Your task to perform on an android device: turn smart compose on in the gmail app Image 0: 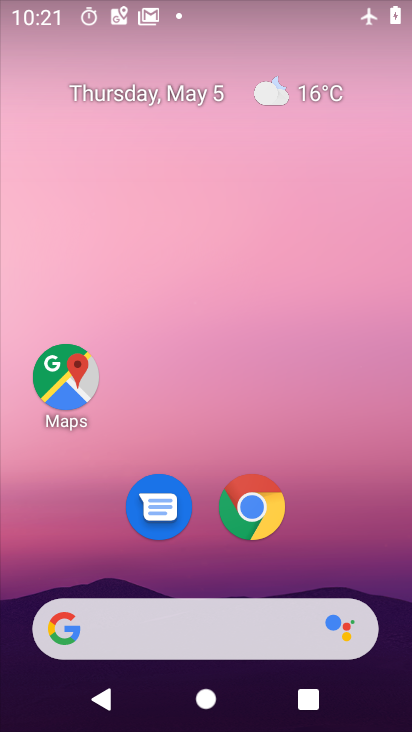
Step 0: drag from (151, 580) to (187, 195)
Your task to perform on an android device: turn smart compose on in the gmail app Image 1: 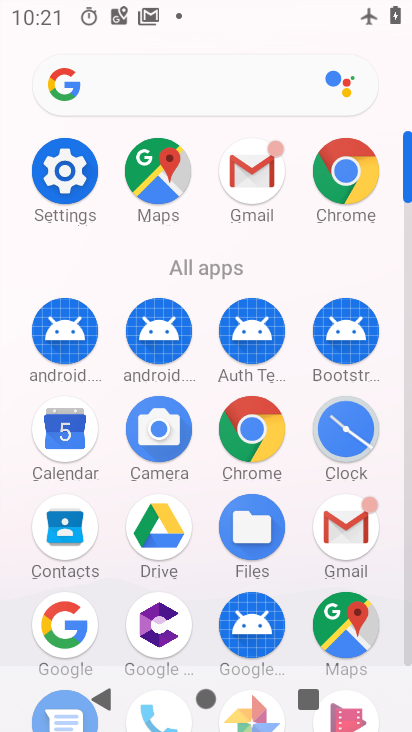
Step 1: click (360, 526)
Your task to perform on an android device: turn smart compose on in the gmail app Image 2: 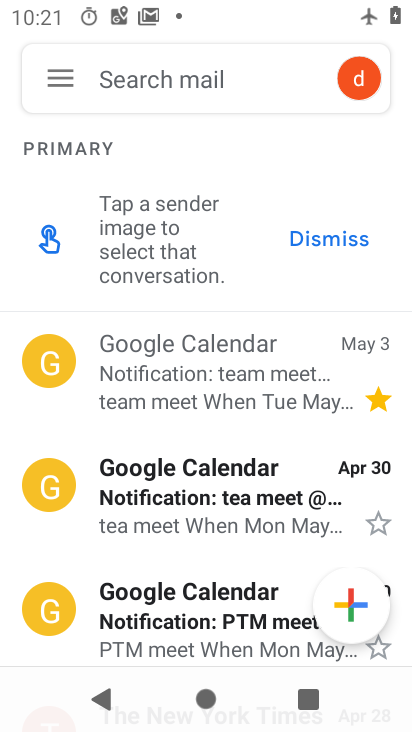
Step 2: click (44, 77)
Your task to perform on an android device: turn smart compose on in the gmail app Image 3: 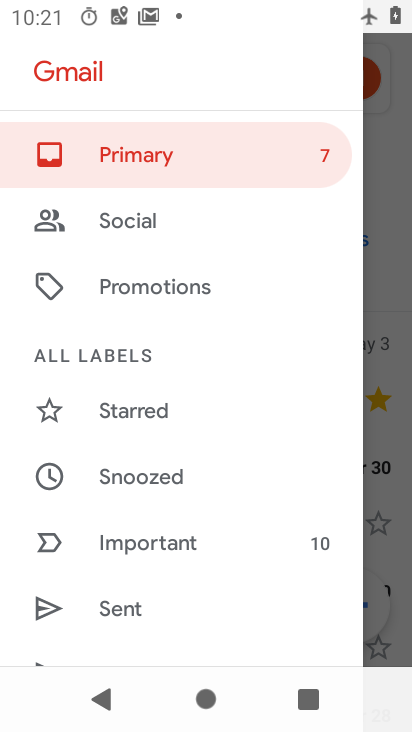
Step 3: drag from (142, 614) to (207, 268)
Your task to perform on an android device: turn smart compose on in the gmail app Image 4: 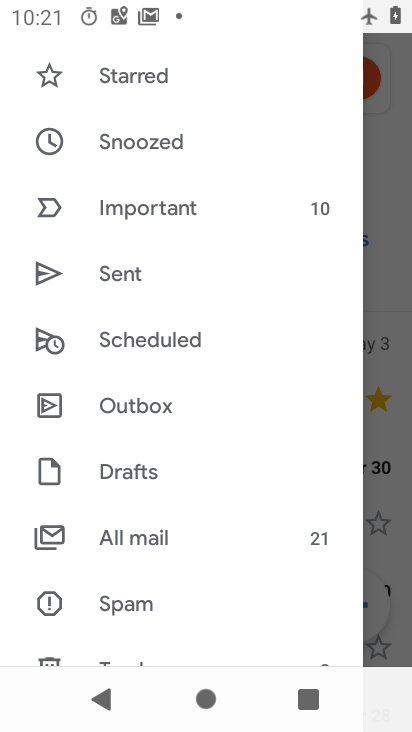
Step 4: drag from (137, 619) to (172, 398)
Your task to perform on an android device: turn smart compose on in the gmail app Image 5: 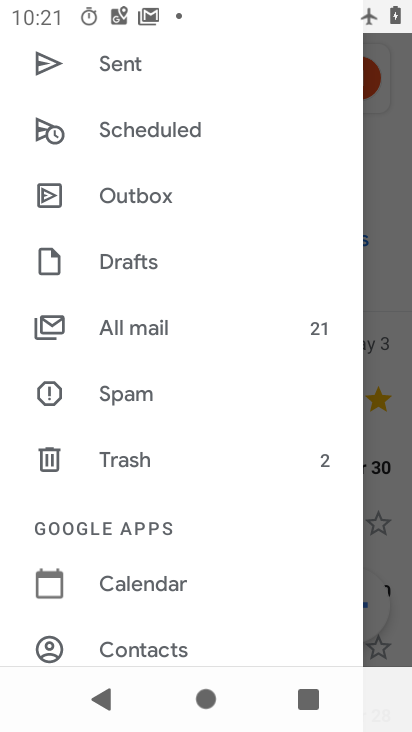
Step 5: drag from (126, 635) to (199, 352)
Your task to perform on an android device: turn smart compose on in the gmail app Image 6: 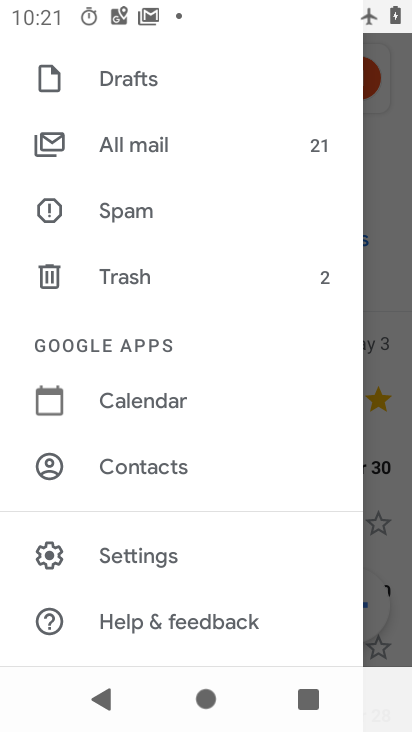
Step 6: click (133, 557)
Your task to perform on an android device: turn smart compose on in the gmail app Image 7: 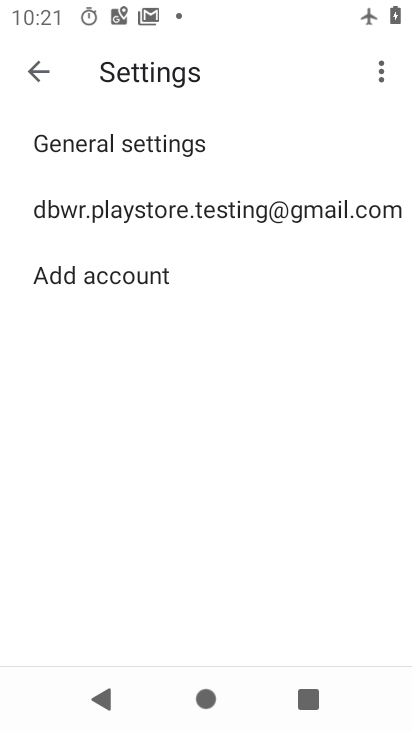
Step 7: click (161, 198)
Your task to perform on an android device: turn smart compose on in the gmail app Image 8: 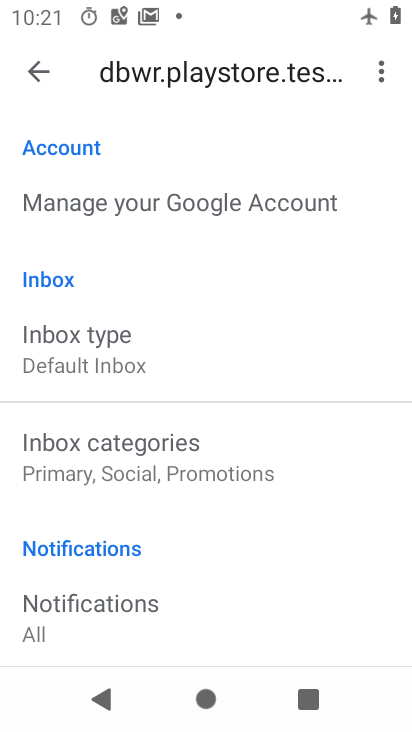
Step 8: task complete